Your task to perform on an android device: turn on notifications settings in the gmail app Image 0: 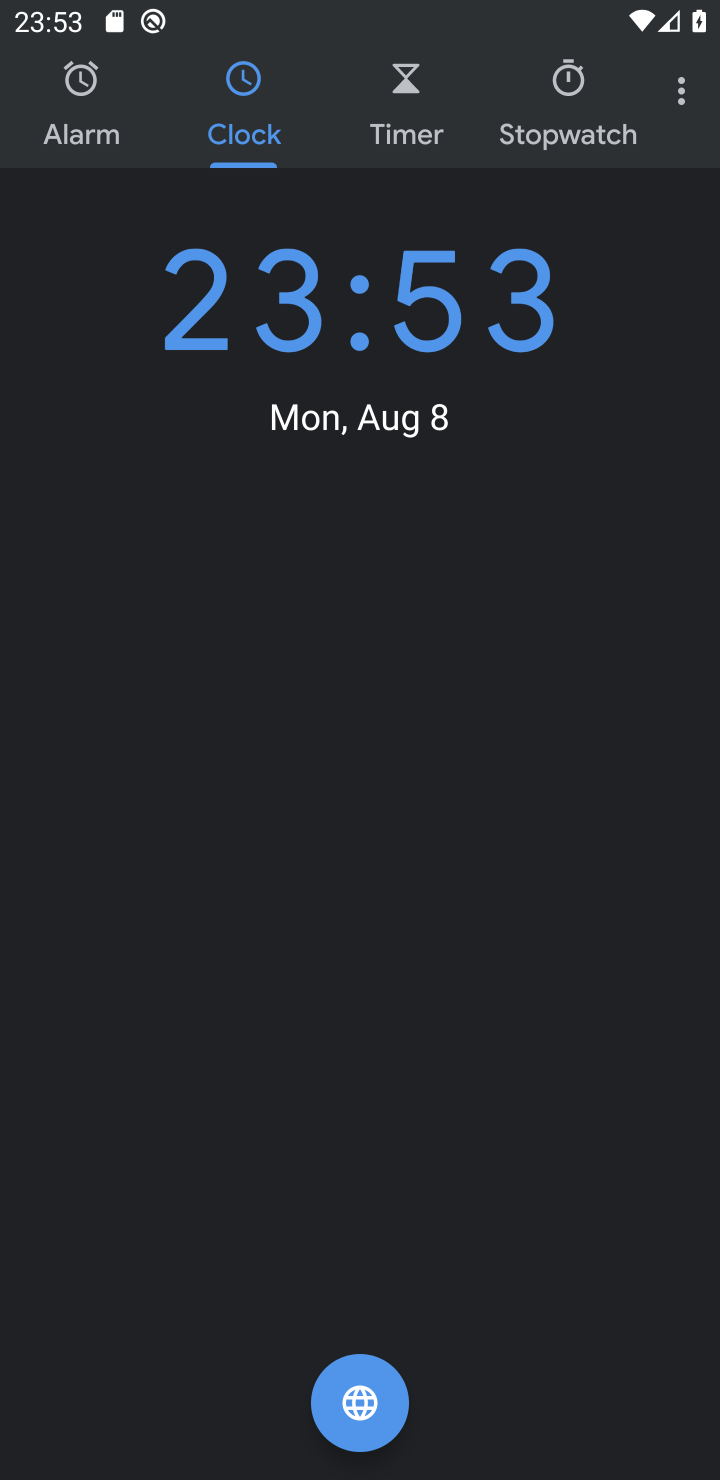
Step 0: press home button
Your task to perform on an android device: turn on notifications settings in the gmail app Image 1: 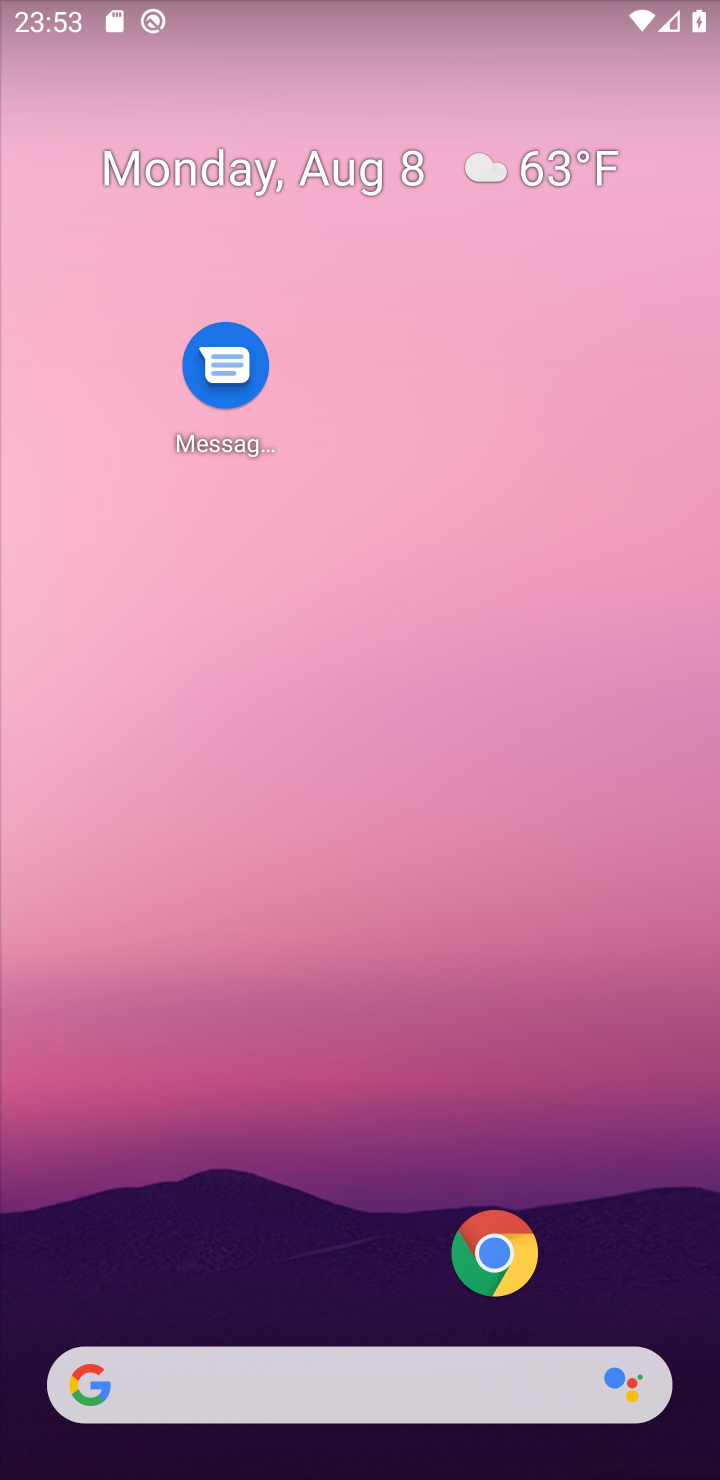
Step 1: drag from (320, 1025) to (390, 514)
Your task to perform on an android device: turn on notifications settings in the gmail app Image 2: 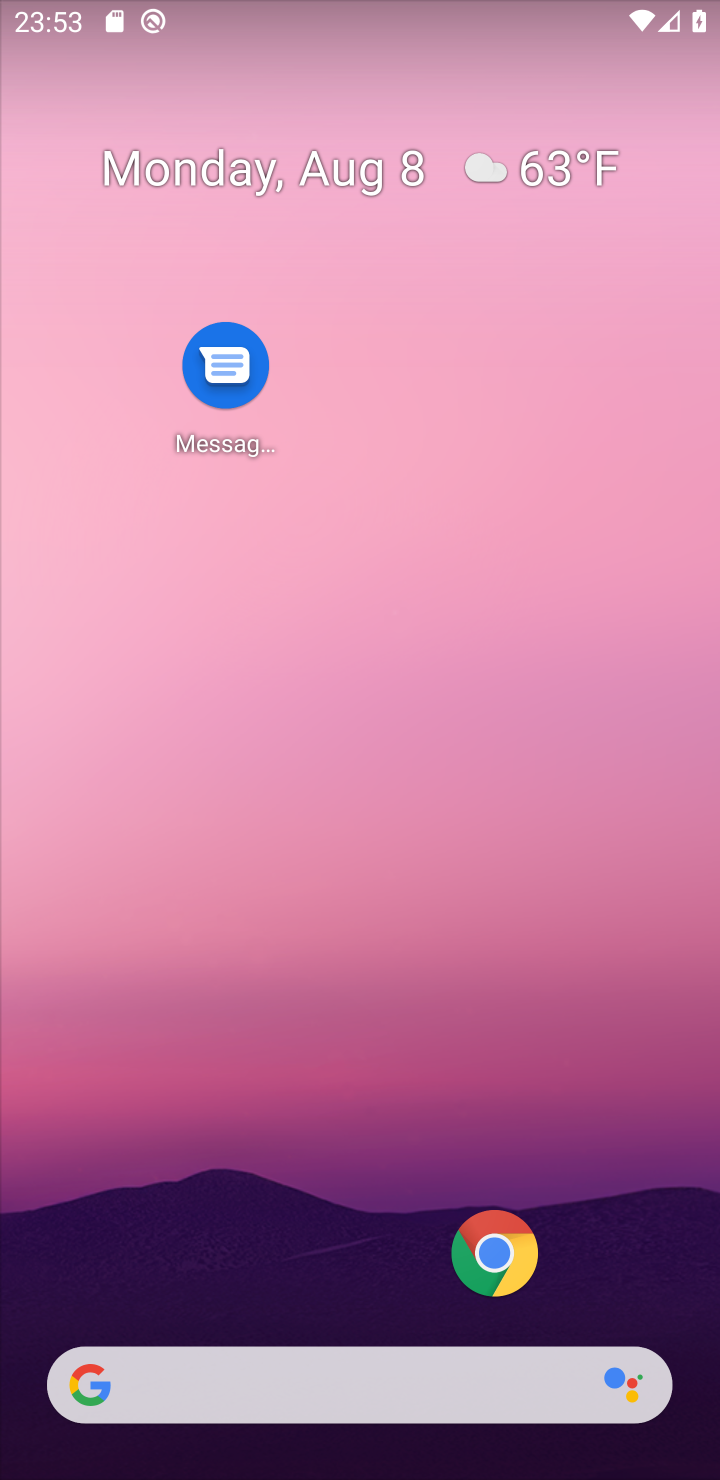
Step 2: drag from (257, 1313) to (404, 463)
Your task to perform on an android device: turn on notifications settings in the gmail app Image 3: 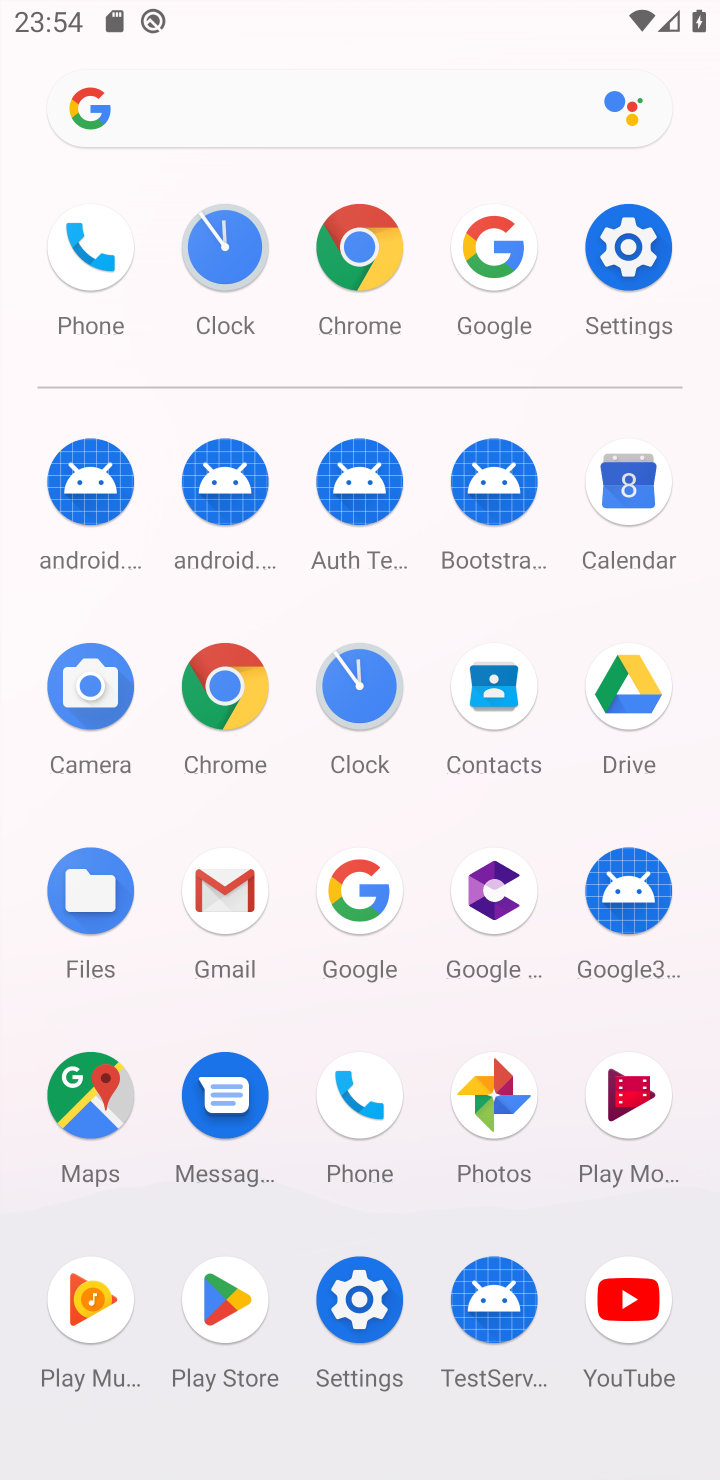
Step 3: click (207, 878)
Your task to perform on an android device: turn on notifications settings in the gmail app Image 4: 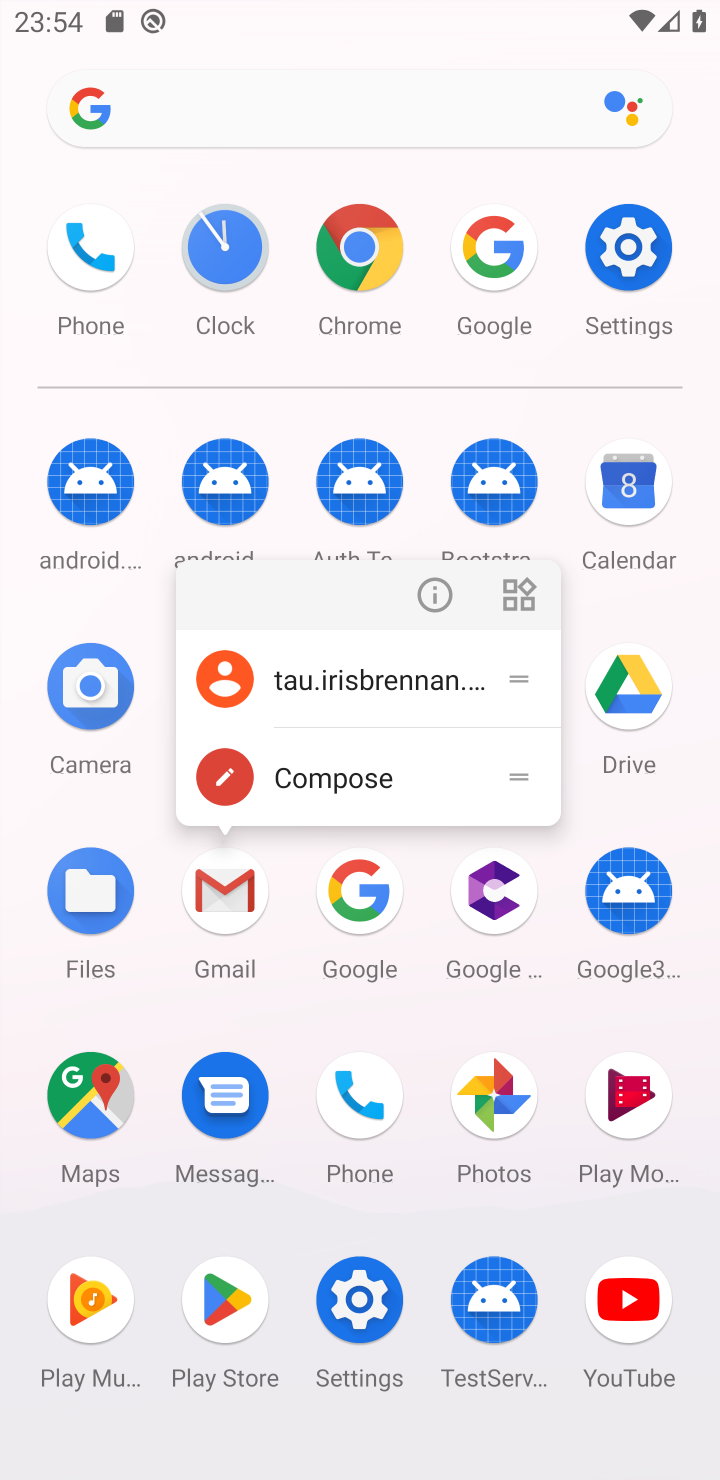
Step 4: click (231, 879)
Your task to perform on an android device: turn on notifications settings in the gmail app Image 5: 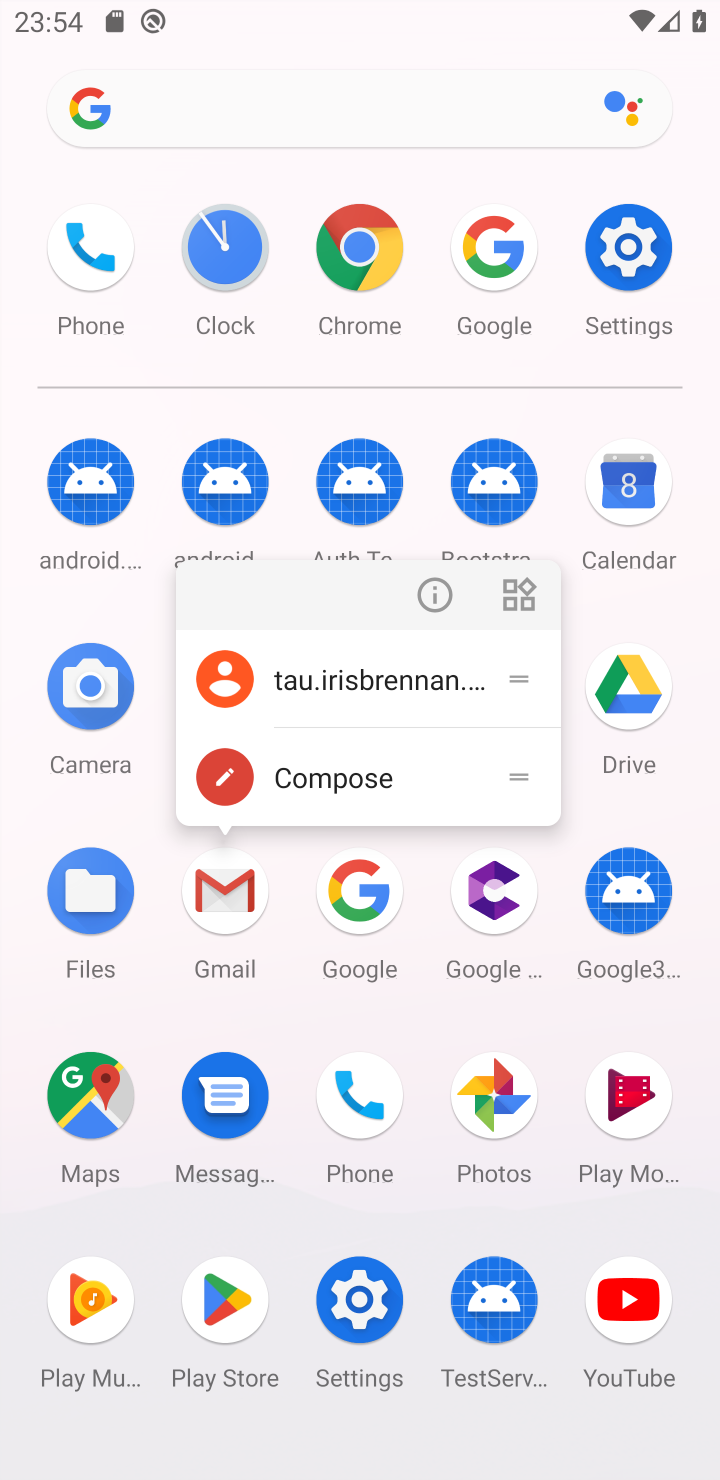
Step 5: click (233, 881)
Your task to perform on an android device: turn on notifications settings in the gmail app Image 6: 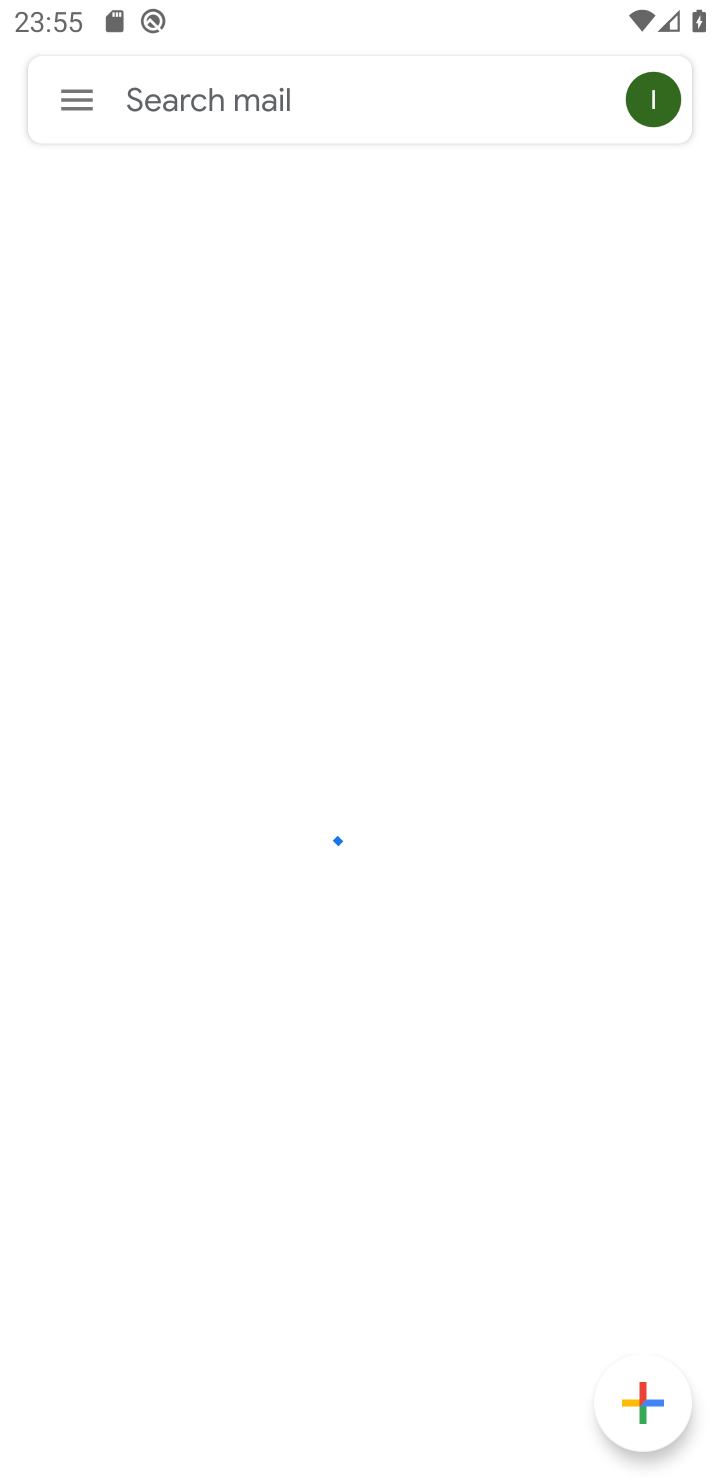
Step 6: click (65, 84)
Your task to perform on an android device: turn on notifications settings in the gmail app Image 7: 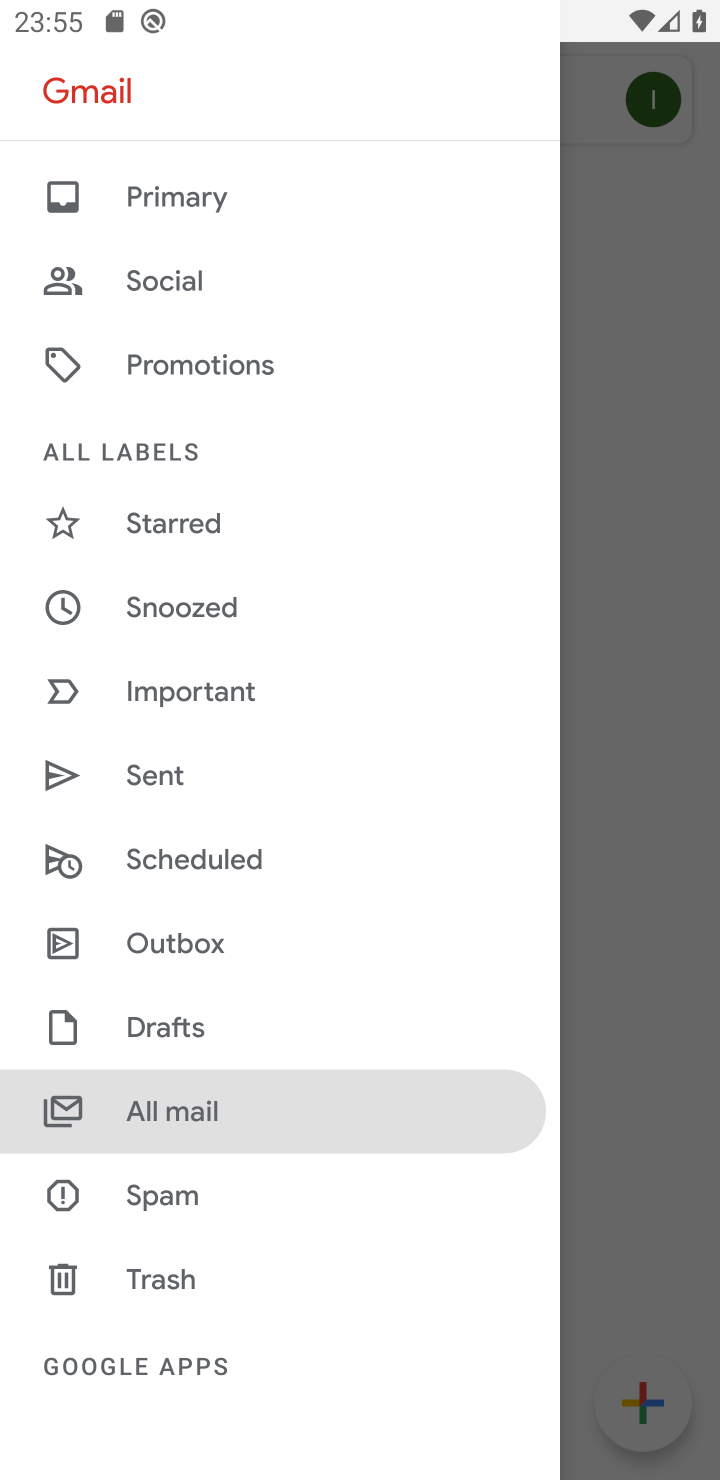
Step 7: drag from (135, 1310) to (254, 481)
Your task to perform on an android device: turn on notifications settings in the gmail app Image 8: 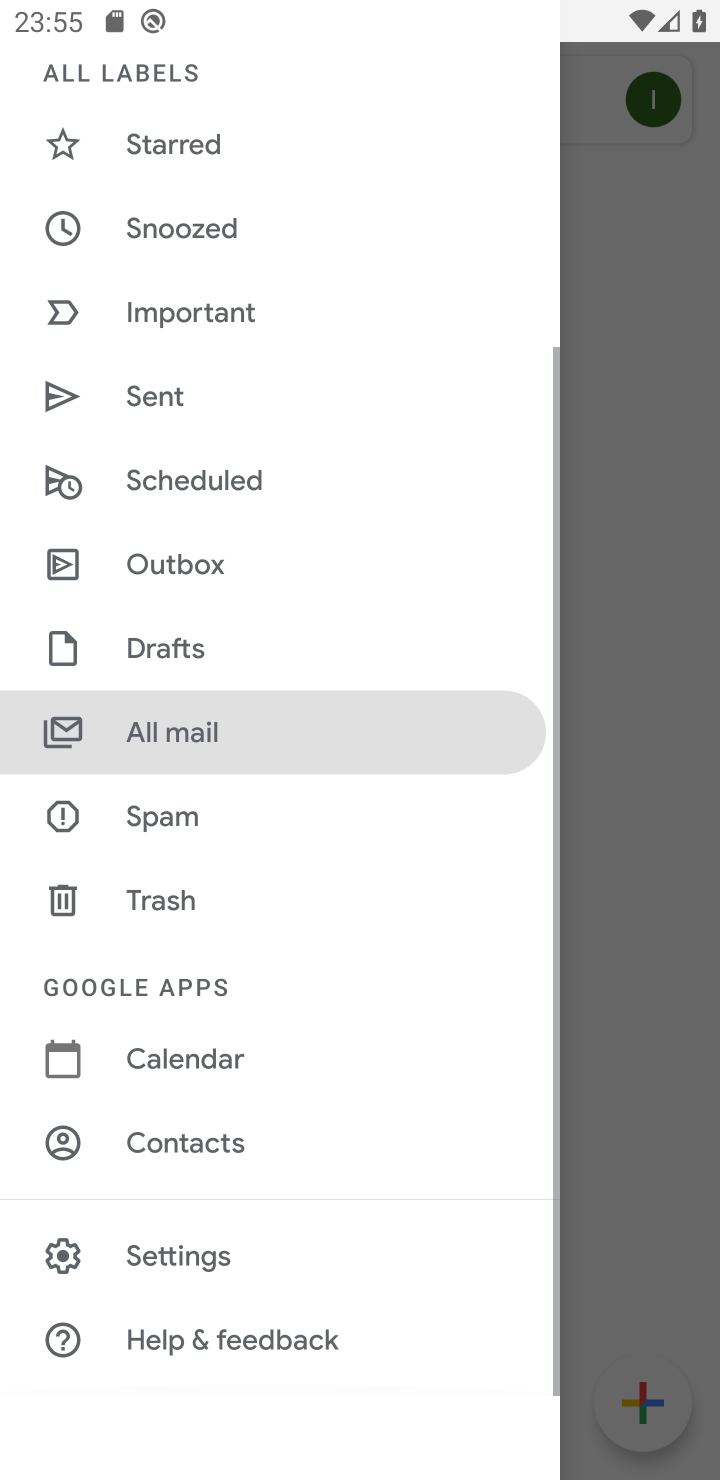
Step 8: click (186, 1255)
Your task to perform on an android device: turn on notifications settings in the gmail app Image 9: 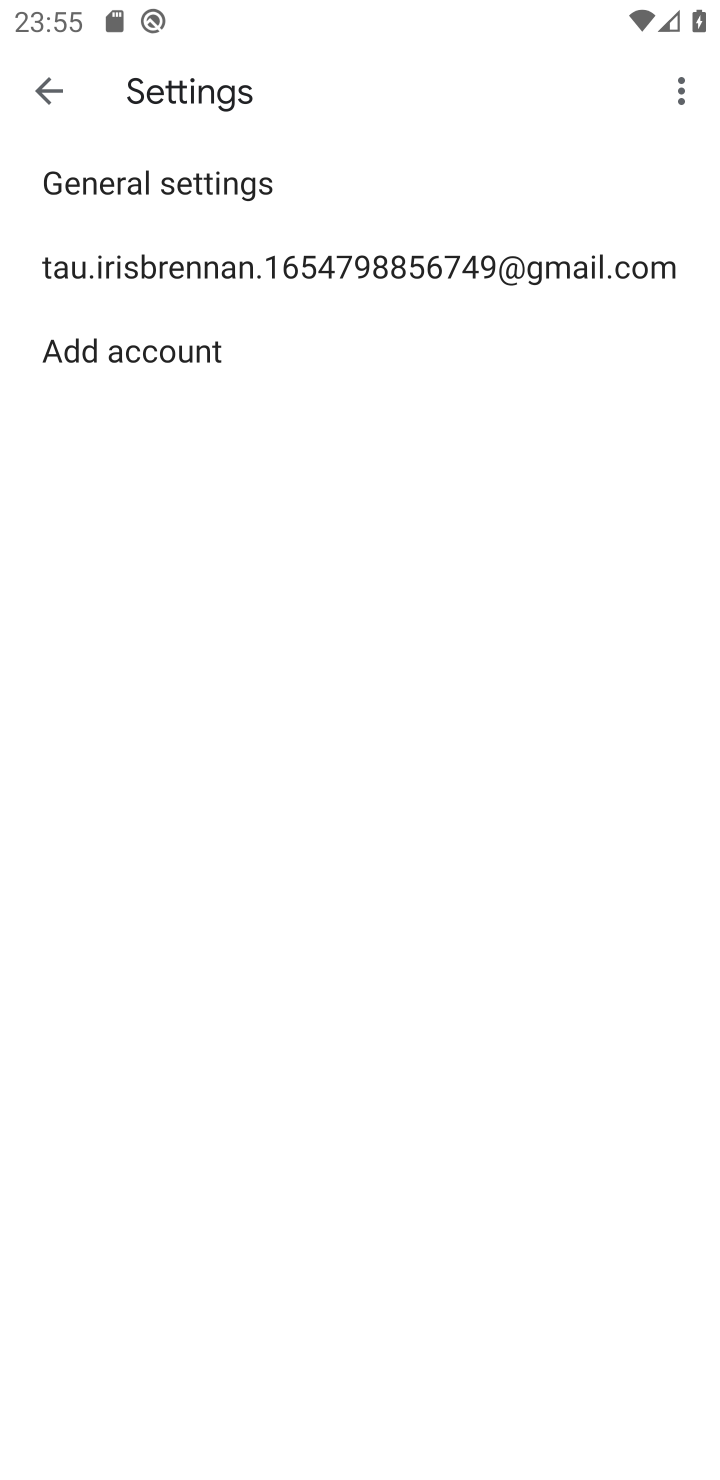
Step 9: click (335, 228)
Your task to perform on an android device: turn on notifications settings in the gmail app Image 10: 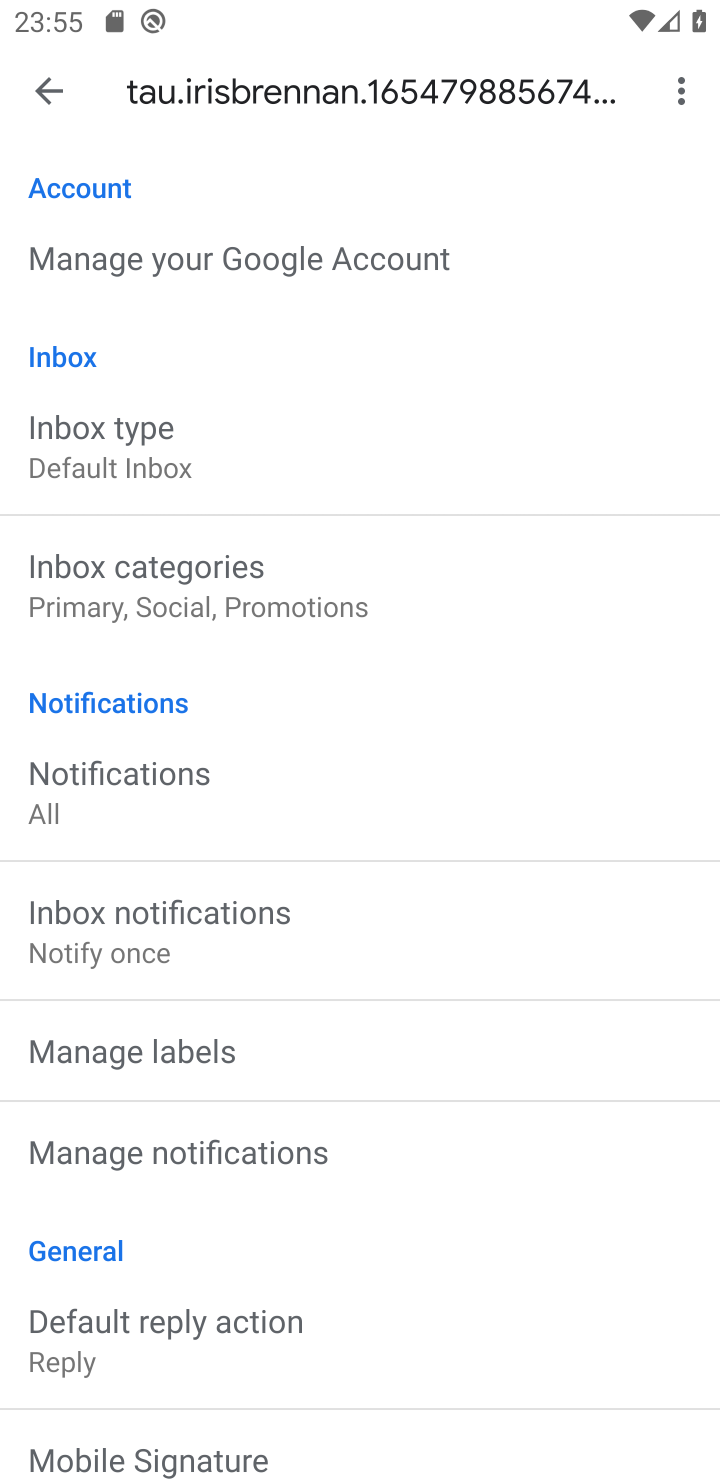
Step 10: click (138, 785)
Your task to perform on an android device: turn on notifications settings in the gmail app Image 11: 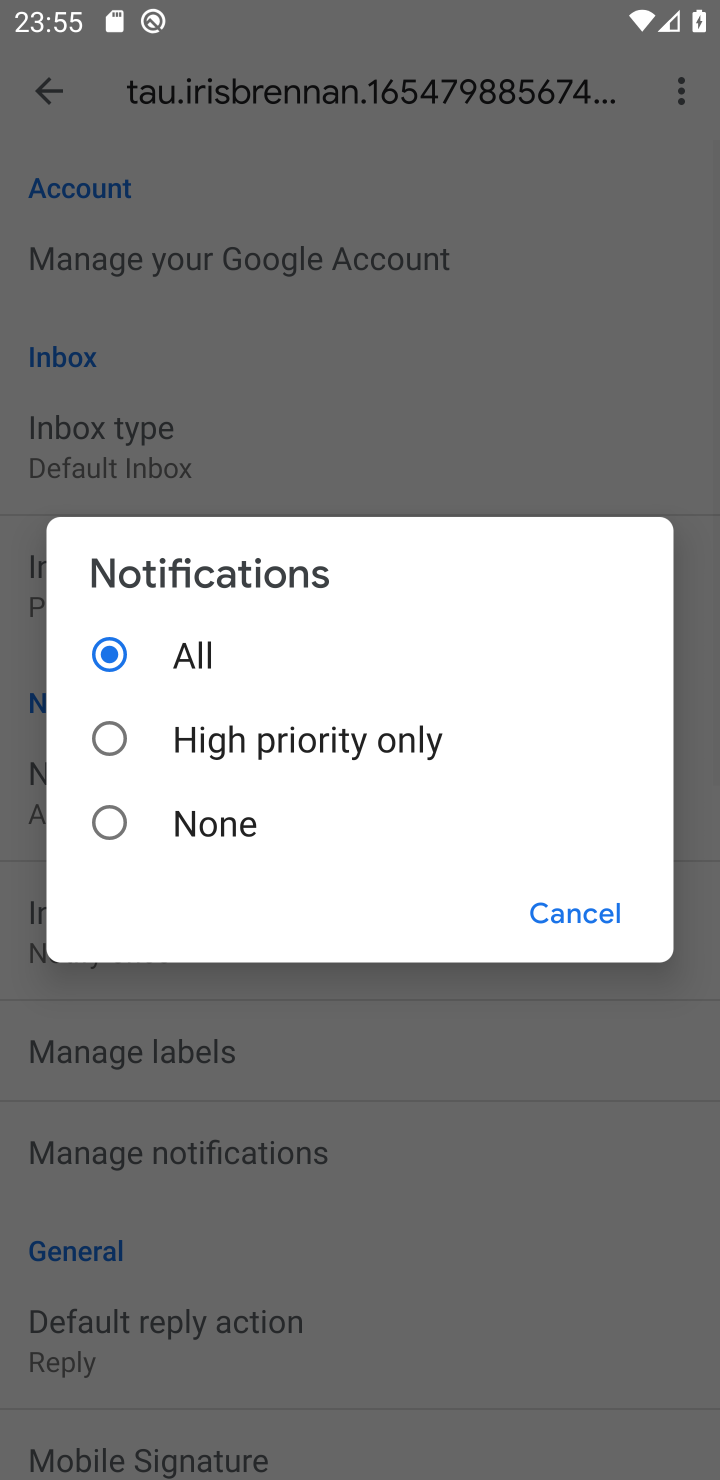
Step 11: task complete